Your task to perform on an android device: turn on sleep mode Image 0: 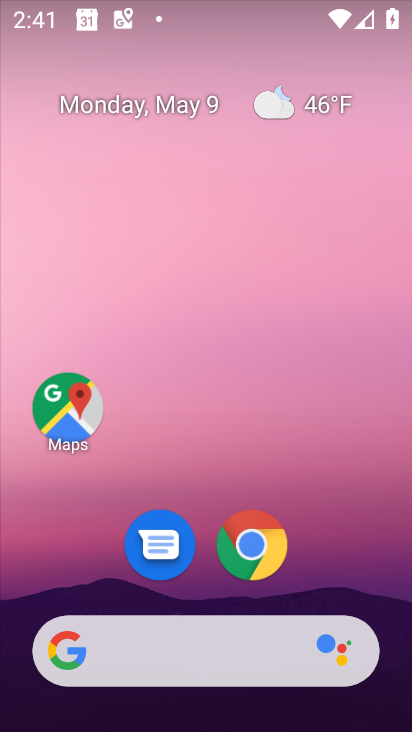
Step 0: drag from (216, 582) to (238, 224)
Your task to perform on an android device: turn on sleep mode Image 1: 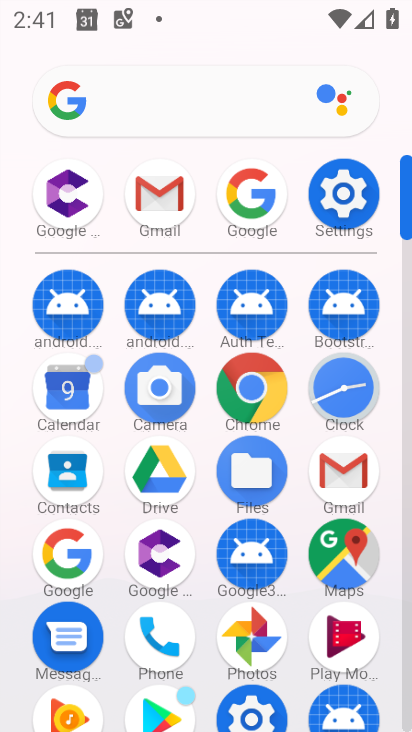
Step 1: click (338, 187)
Your task to perform on an android device: turn on sleep mode Image 2: 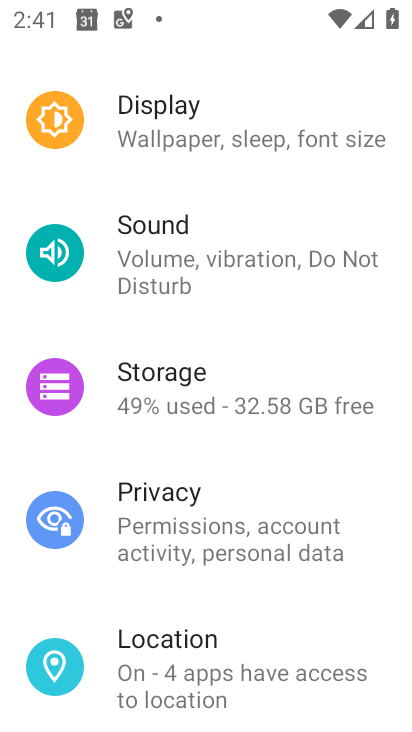
Step 2: drag from (231, 227) to (234, 409)
Your task to perform on an android device: turn on sleep mode Image 3: 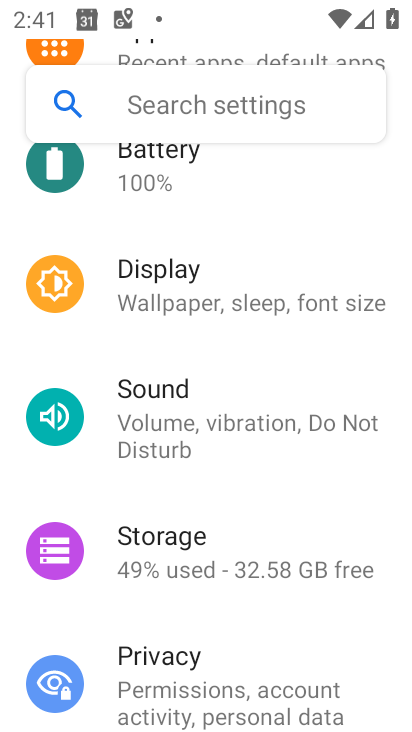
Step 3: click (217, 294)
Your task to perform on an android device: turn on sleep mode Image 4: 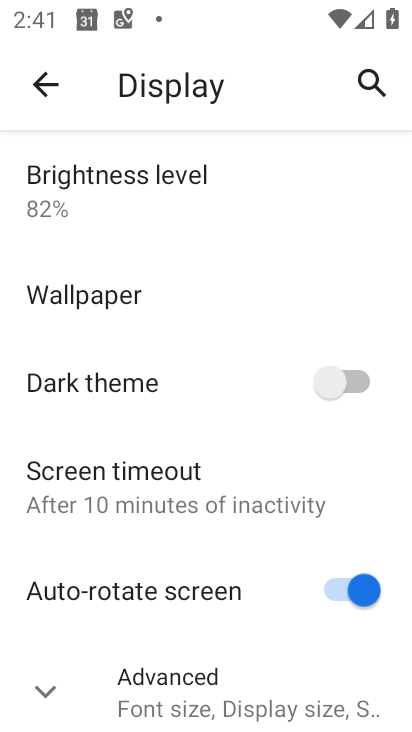
Step 4: drag from (186, 680) to (183, 466)
Your task to perform on an android device: turn on sleep mode Image 5: 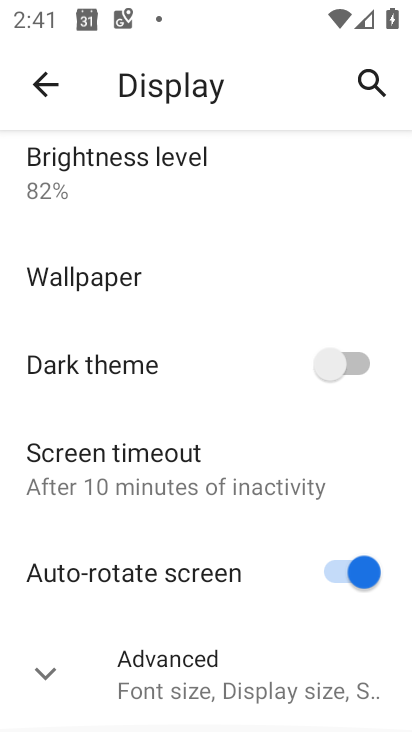
Step 5: click (158, 677)
Your task to perform on an android device: turn on sleep mode Image 6: 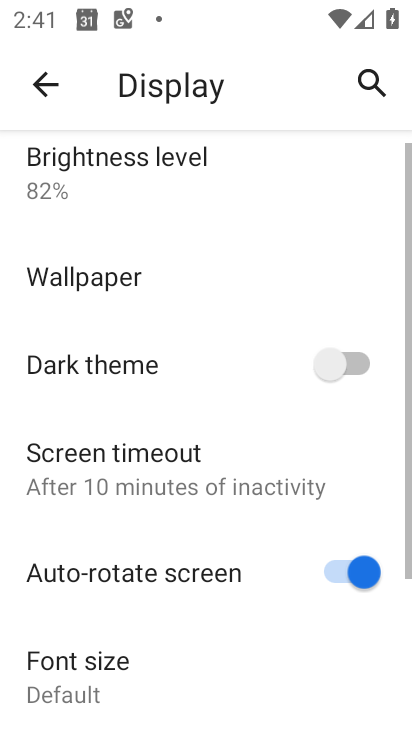
Step 6: drag from (161, 509) to (196, 401)
Your task to perform on an android device: turn on sleep mode Image 7: 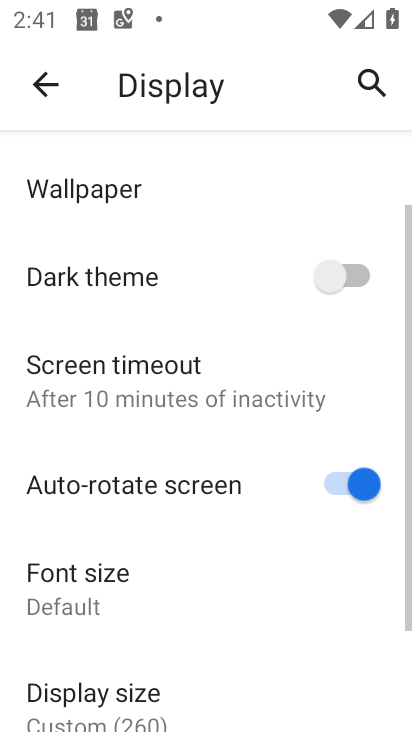
Step 7: drag from (162, 674) to (223, 366)
Your task to perform on an android device: turn on sleep mode Image 8: 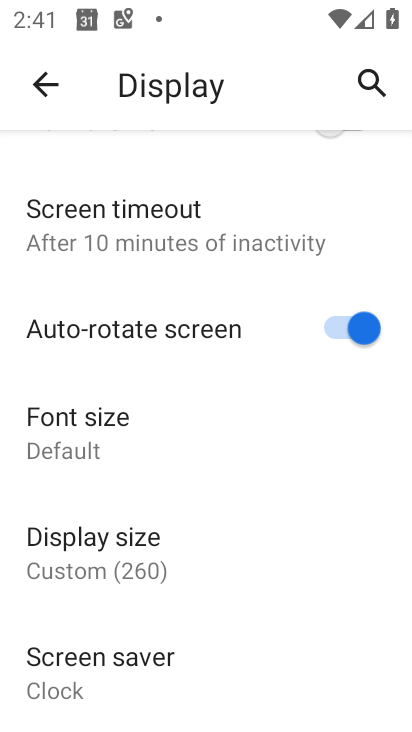
Step 8: click (196, 252)
Your task to perform on an android device: turn on sleep mode Image 9: 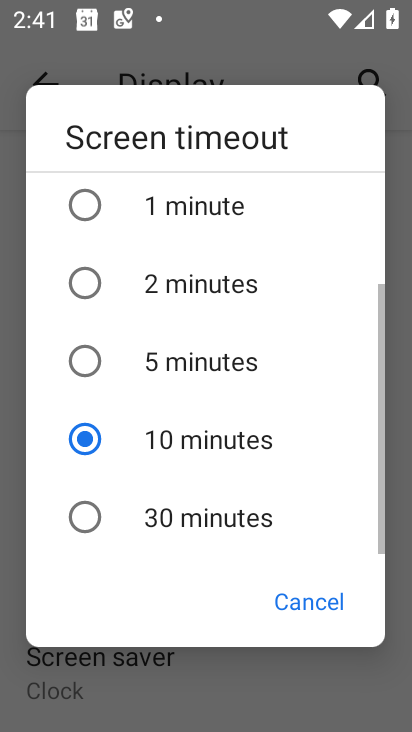
Step 9: click (202, 283)
Your task to perform on an android device: turn on sleep mode Image 10: 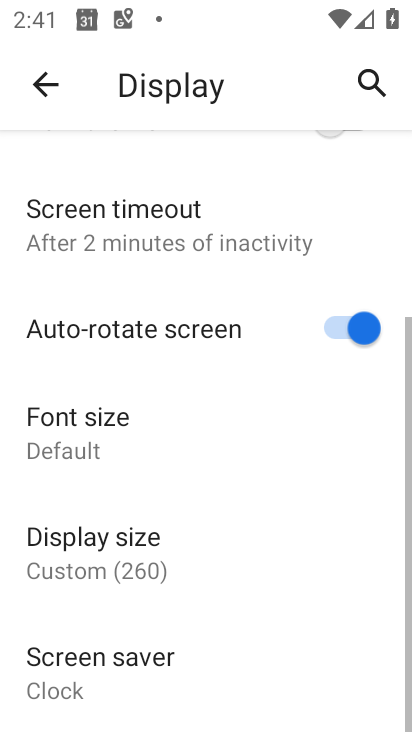
Step 10: task complete